Your task to perform on an android device: Open settings Image 0: 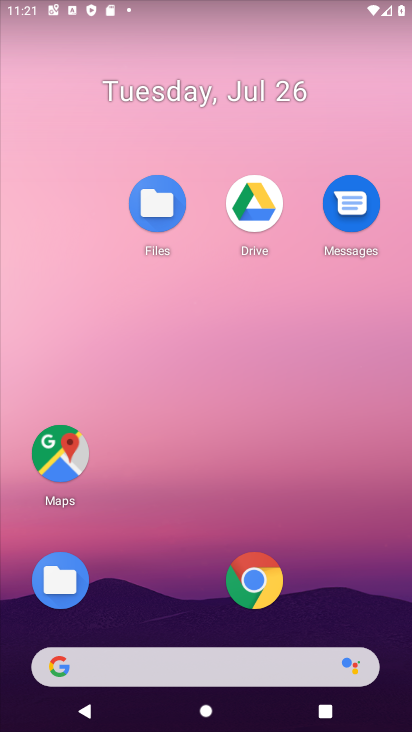
Step 0: drag from (155, 613) to (179, 142)
Your task to perform on an android device: Open settings Image 1: 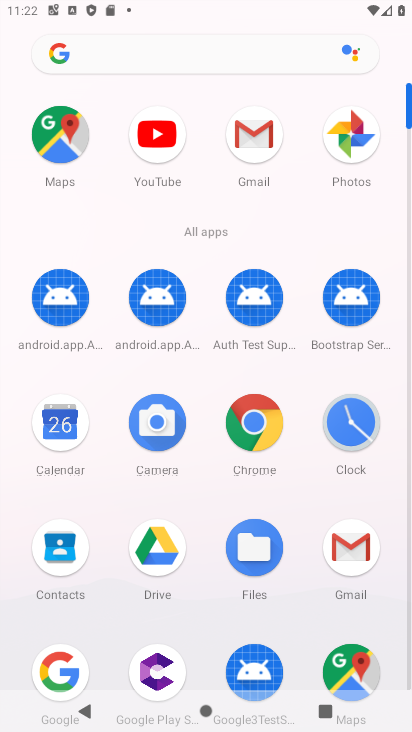
Step 1: drag from (199, 683) to (222, 204)
Your task to perform on an android device: Open settings Image 2: 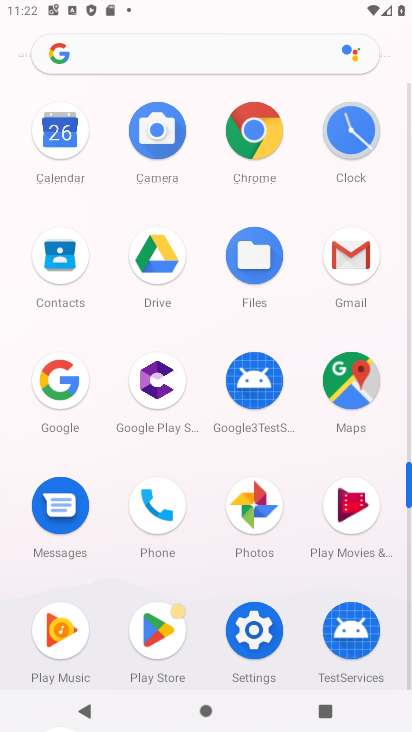
Step 2: click (263, 625)
Your task to perform on an android device: Open settings Image 3: 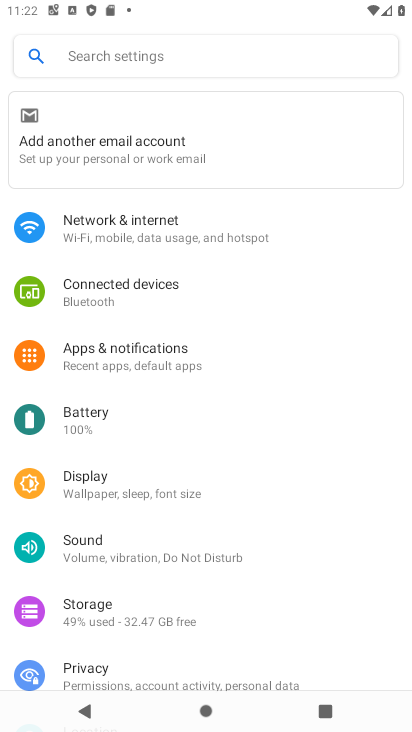
Step 3: task complete